Your task to perform on an android device: Open Wikipedia Image 0: 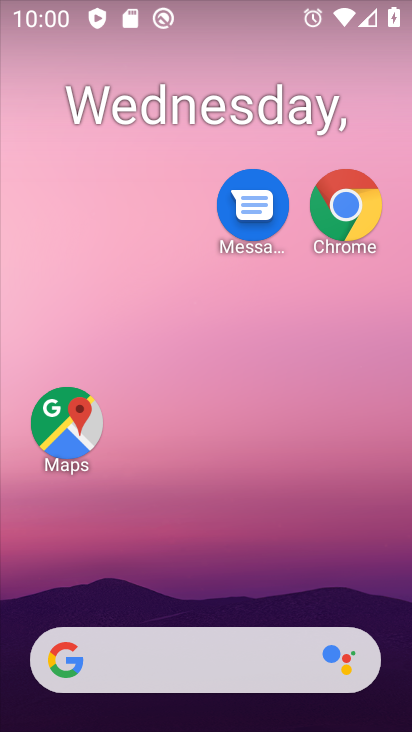
Step 0: drag from (237, 505) to (351, 41)
Your task to perform on an android device: Open Wikipedia Image 1: 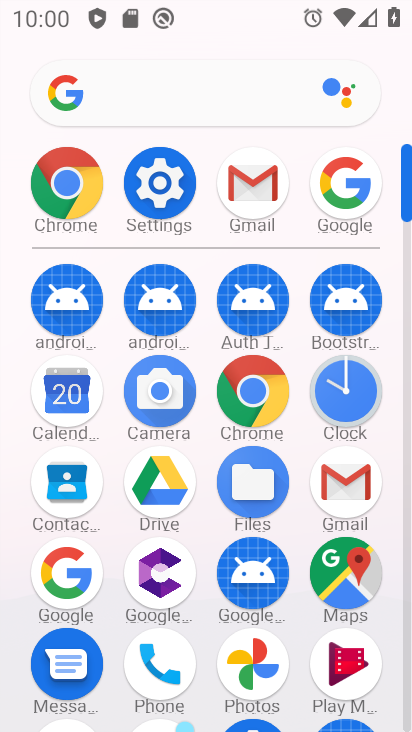
Step 1: click (247, 381)
Your task to perform on an android device: Open Wikipedia Image 2: 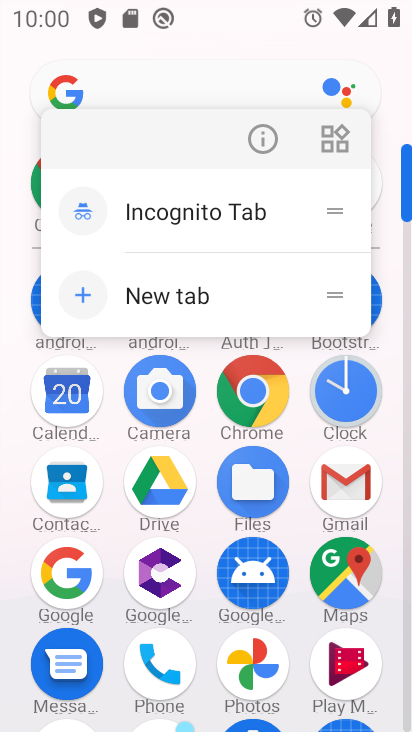
Step 2: click (273, 144)
Your task to perform on an android device: Open Wikipedia Image 3: 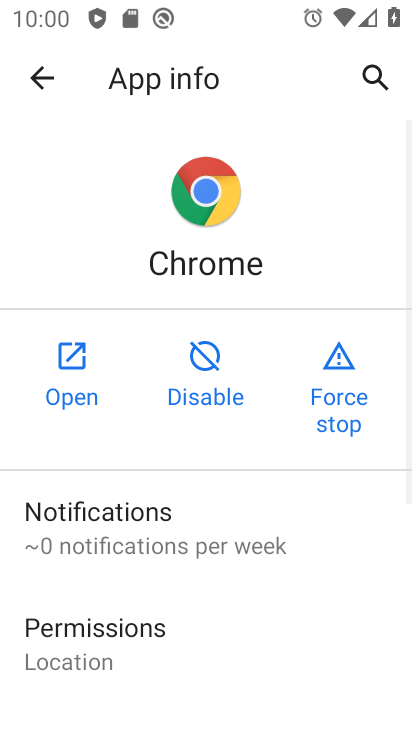
Step 3: click (63, 355)
Your task to perform on an android device: Open Wikipedia Image 4: 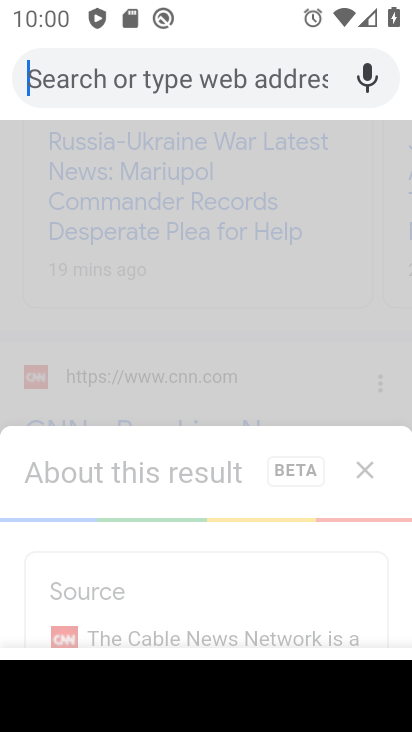
Step 4: click (193, 79)
Your task to perform on an android device: Open Wikipedia Image 5: 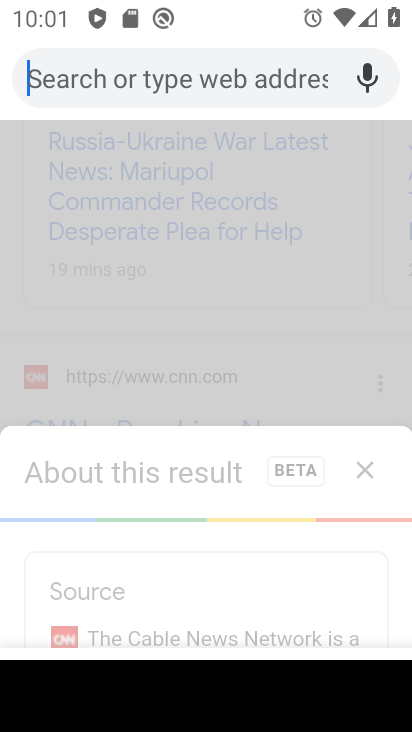
Step 5: type "wikipedia"
Your task to perform on an android device: Open Wikipedia Image 6: 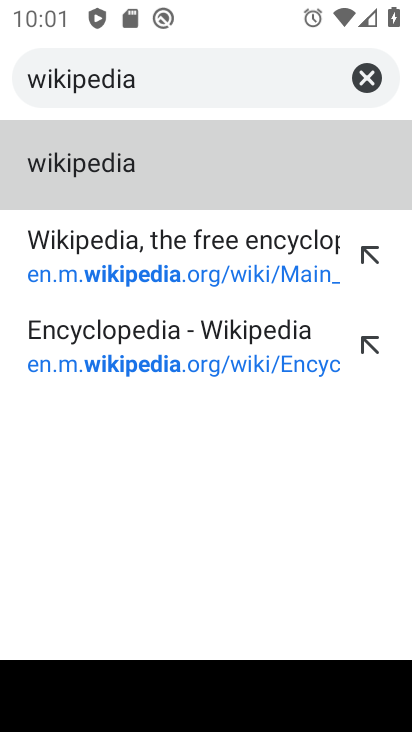
Step 6: click (139, 166)
Your task to perform on an android device: Open Wikipedia Image 7: 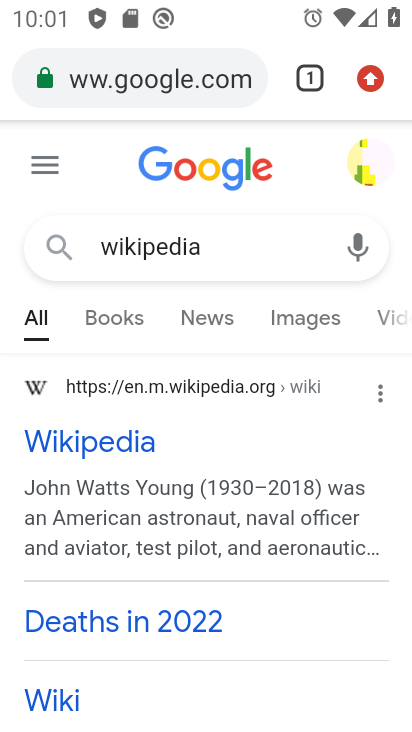
Step 7: click (96, 435)
Your task to perform on an android device: Open Wikipedia Image 8: 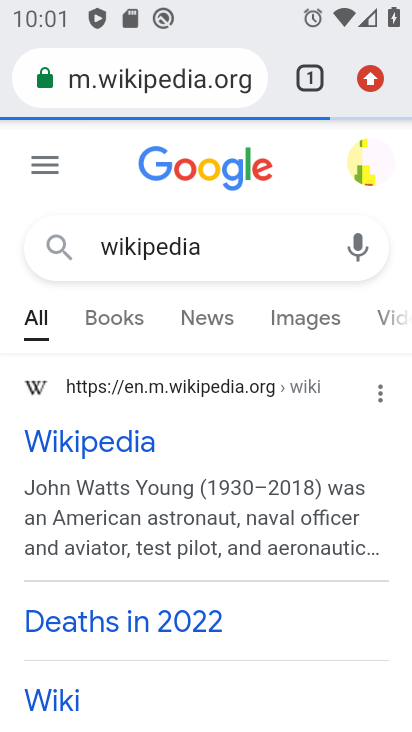
Step 8: task complete